Your task to perform on an android device: find snoozed emails in the gmail app Image 0: 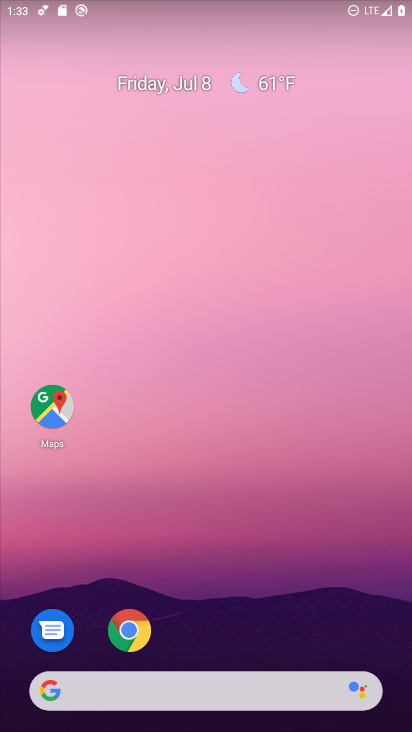
Step 0: drag from (405, 623) to (329, 208)
Your task to perform on an android device: find snoozed emails in the gmail app Image 1: 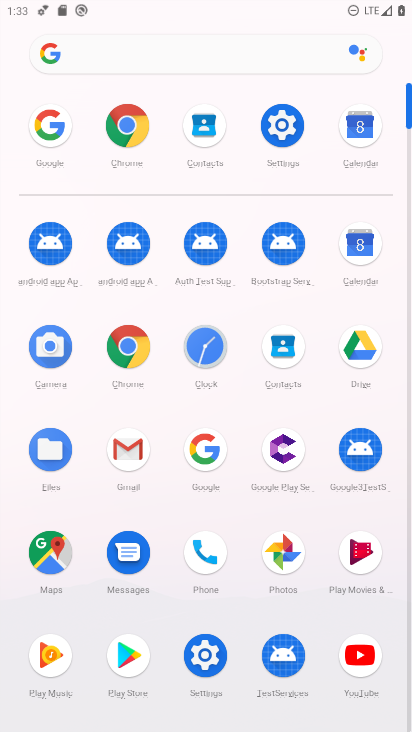
Step 1: click (142, 457)
Your task to perform on an android device: find snoozed emails in the gmail app Image 2: 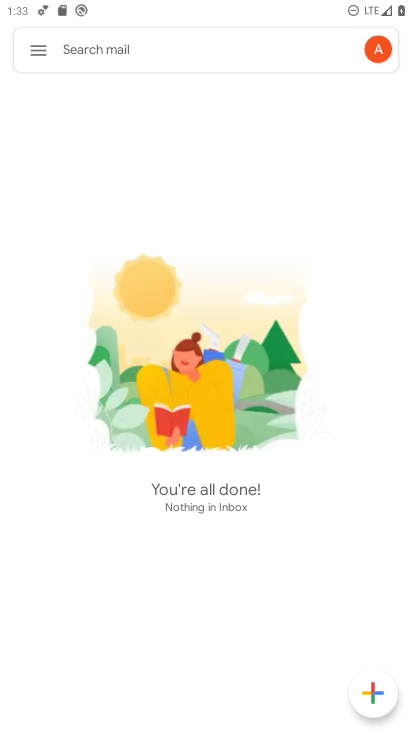
Step 2: click (32, 23)
Your task to perform on an android device: find snoozed emails in the gmail app Image 3: 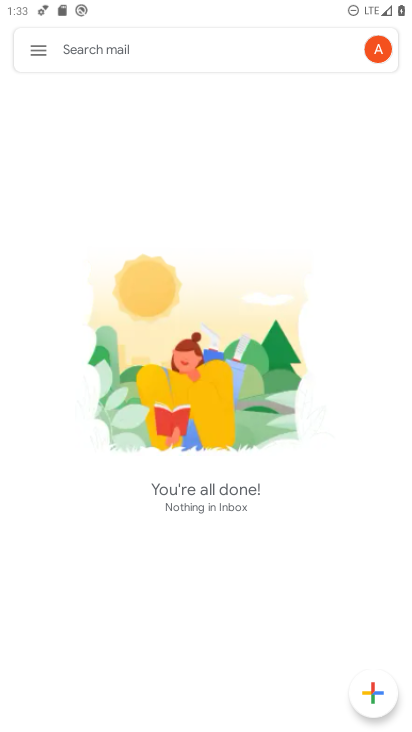
Step 3: click (37, 50)
Your task to perform on an android device: find snoozed emails in the gmail app Image 4: 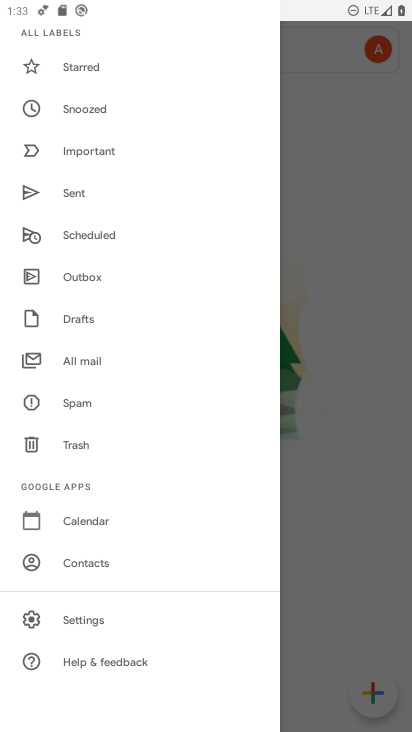
Step 4: click (92, 104)
Your task to perform on an android device: find snoozed emails in the gmail app Image 5: 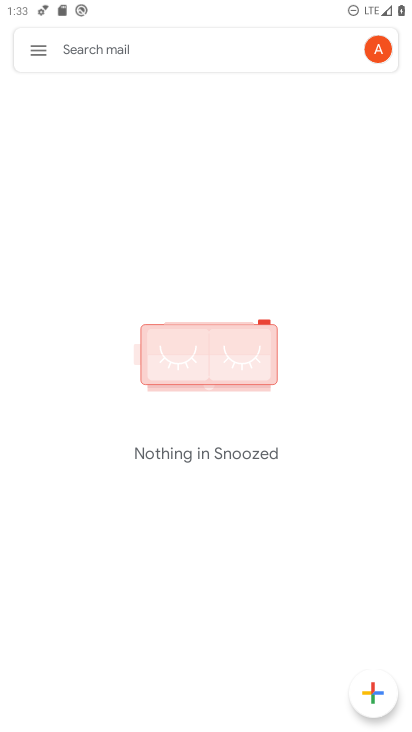
Step 5: task complete